Your task to perform on an android device: Open Yahoo.com Image 0: 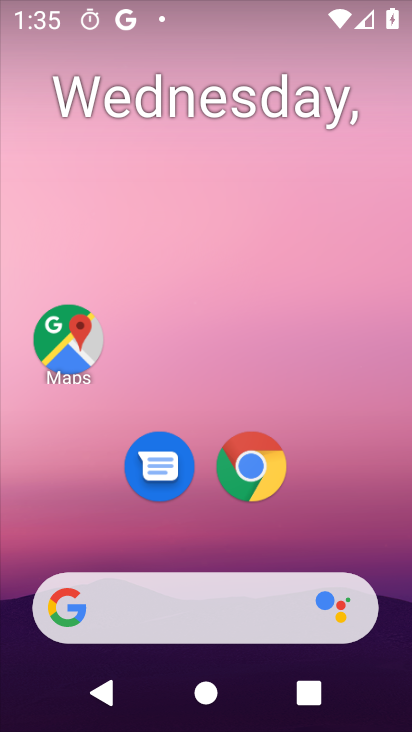
Step 0: click (253, 483)
Your task to perform on an android device: Open Yahoo.com Image 1: 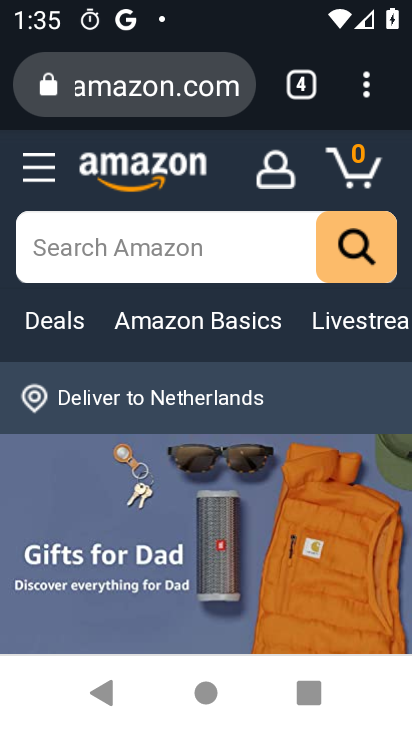
Step 1: click (292, 104)
Your task to perform on an android device: Open Yahoo.com Image 2: 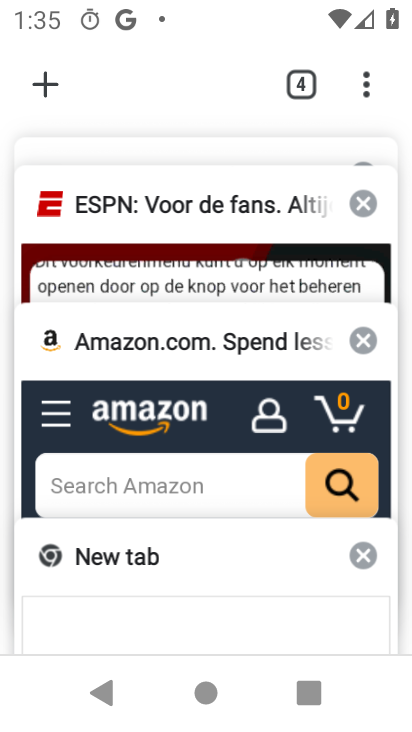
Step 2: drag from (217, 155) to (266, 510)
Your task to perform on an android device: Open Yahoo.com Image 3: 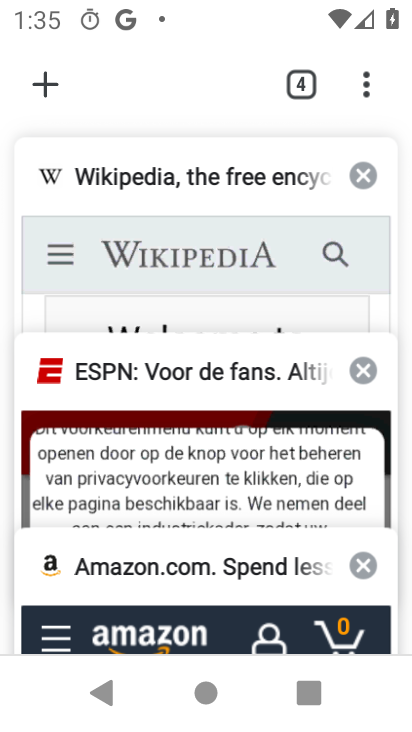
Step 3: drag from (194, 511) to (146, 158)
Your task to perform on an android device: Open Yahoo.com Image 4: 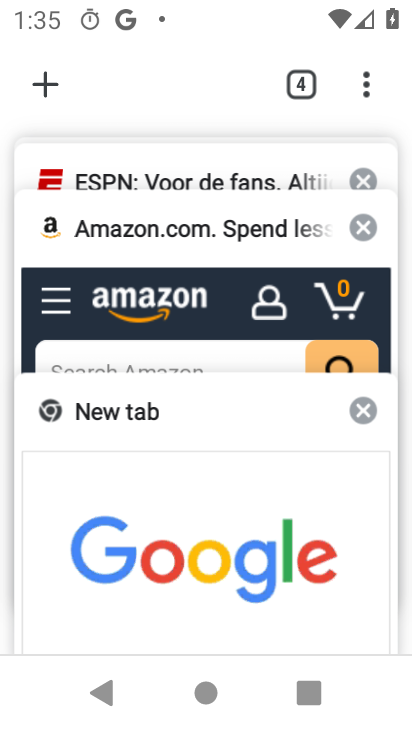
Step 4: click (189, 494)
Your task to perform on an android device: Open Yahoo.com Image 5: 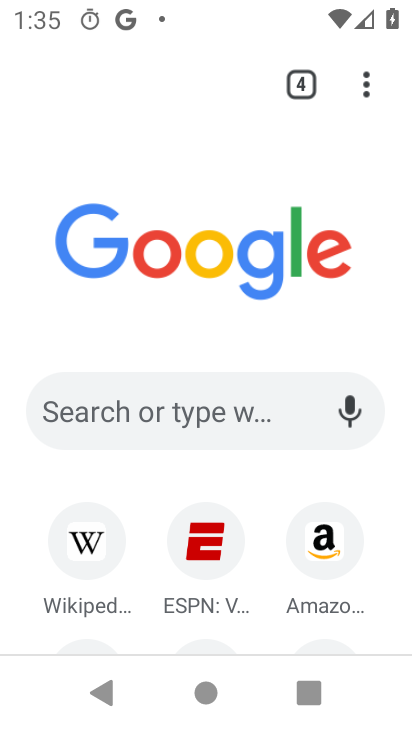
Step 5: drag from (222, 582) to (182, 232)
Your task to perform on an android device: Open Yahoo.com Image 6: 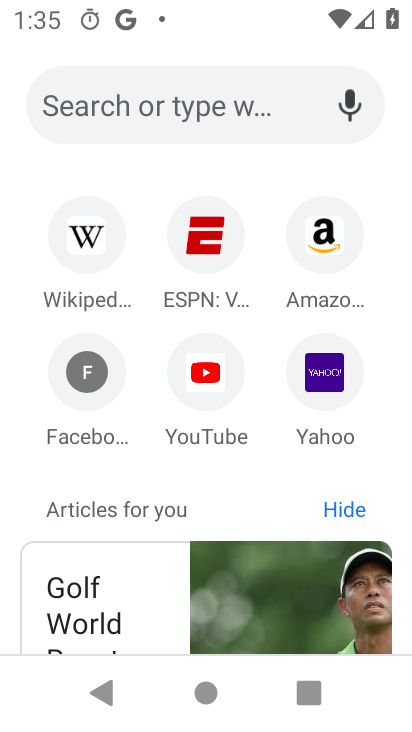
Step 6: click (305, 376)
Your task to perform on an android device: Open Yahoo.com Image 7: 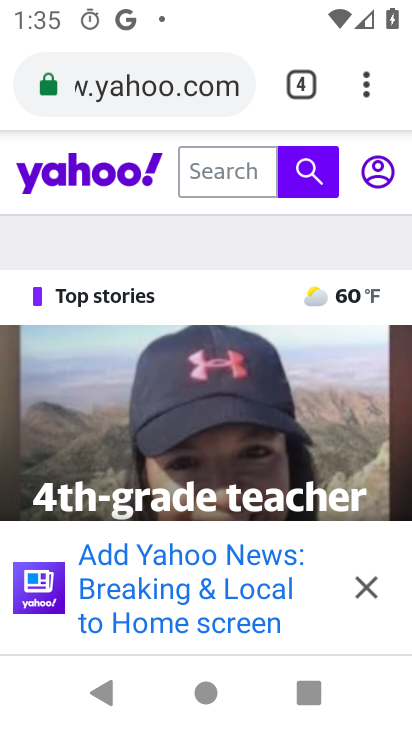
Step 7: task complete